Your task to perform on an android device: check storage Image 0: 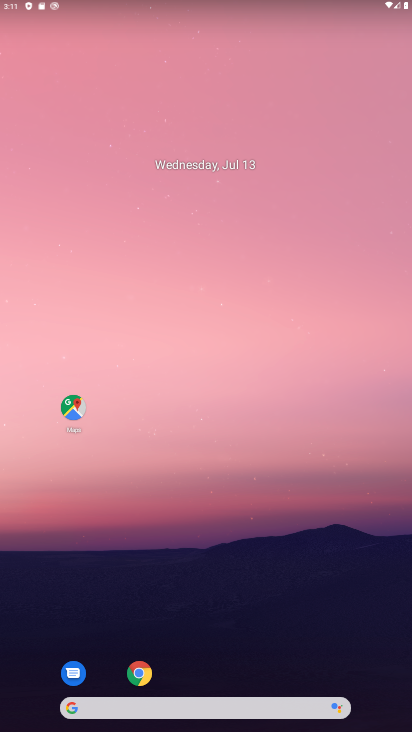
Step 0: drag from (224, 730) to (224, 200)
Your task to perform on an android device: check storage Image 1: 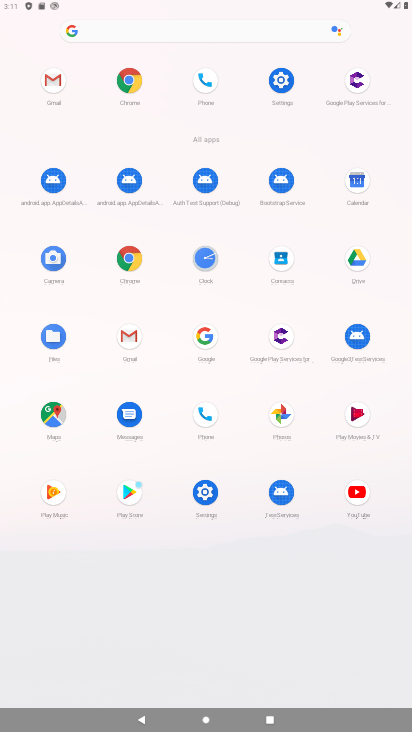
Step 1: click (286, 80)
Your task to perform on an android device: check storage Image 2: 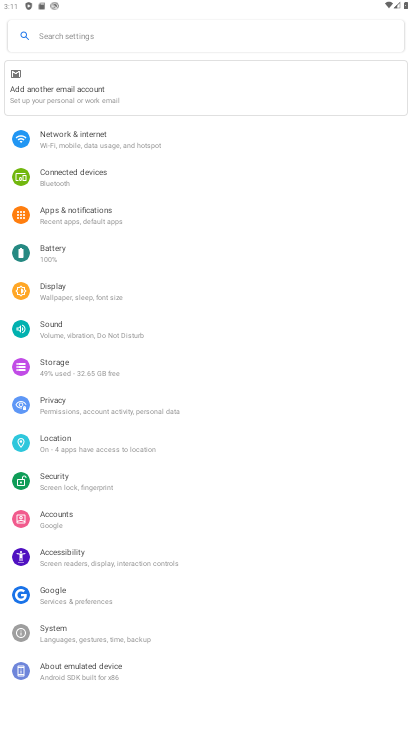
Step 2: click (58, 361)
Your task to perform on an android device: check storage Image 3: 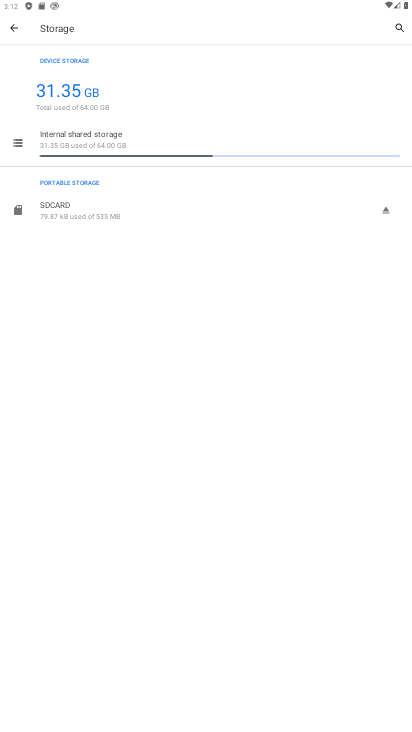
Step 3: task complete